Your task to perform on an android device: turn notification dots off Image 0: 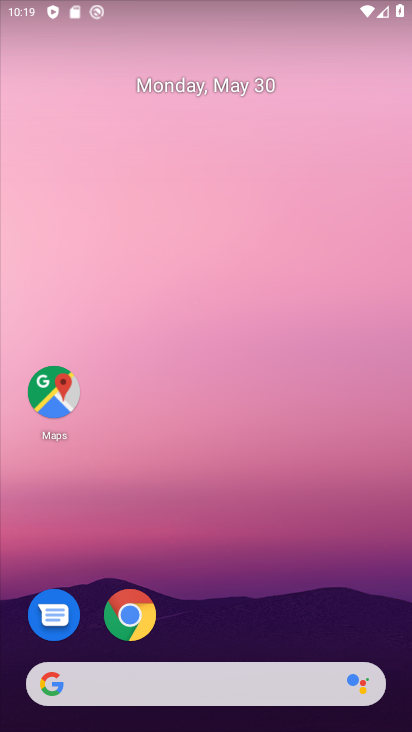
Step 0: drag from (289, 518) to (218, 41)
Your task to perform on an android device: turn notification dots off Image 1: 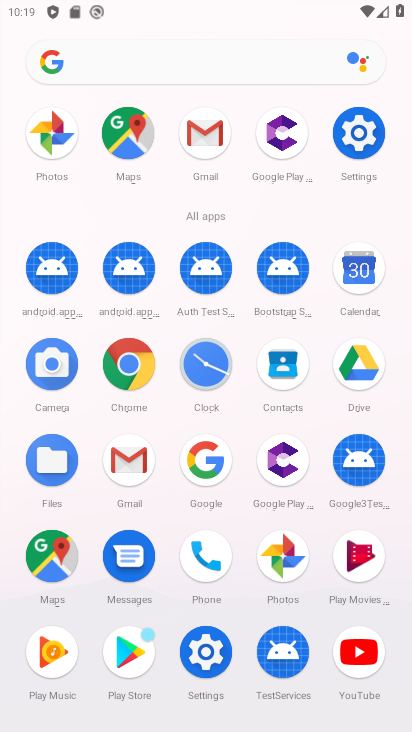
Step 1: drag from (12, 588) to (8, 212)
Your task to perform on an android device: turn notification dots off Image 2: 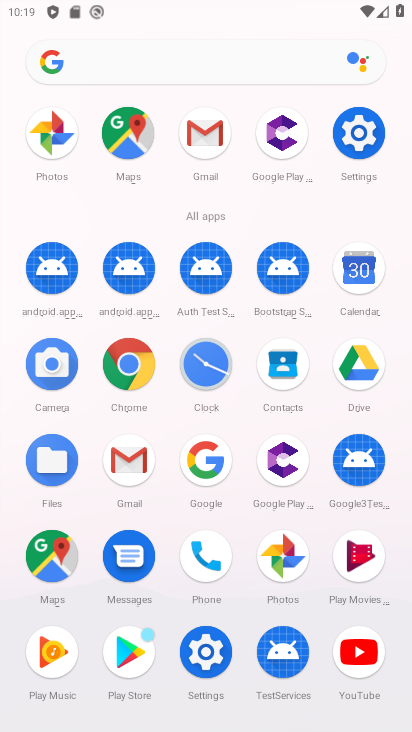
Step 2: click (203, 653)
Your task to perform on an android device: turn notification dots off Image 3: 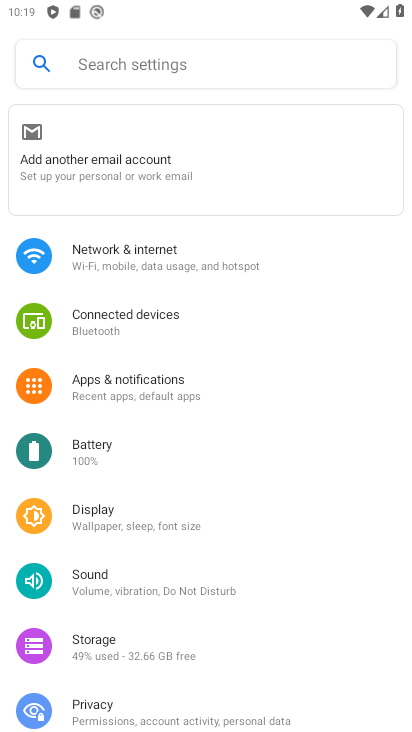
Step 3: click (160, 379)
Your task to perform on an android device: turn notification dots off Image 4: 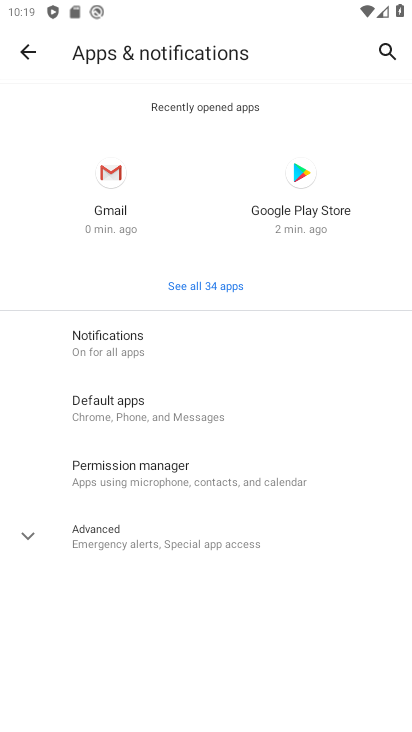
Step 4: click (28, 541)
Your task to perform on an android device: turn notification dots off Image 5: 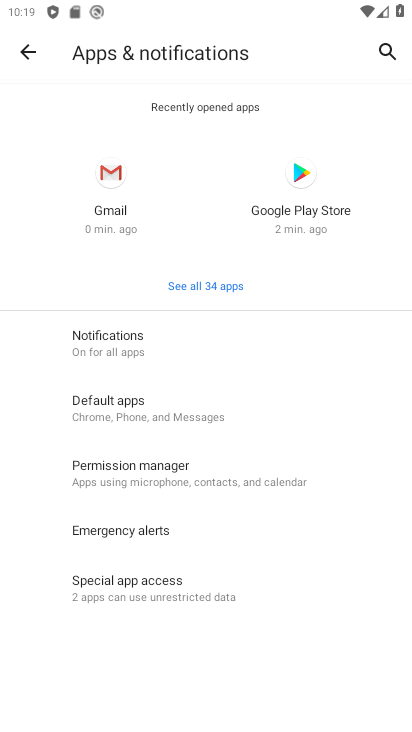
Step 5: click (175, 332)
Your task to perform on an android device: turn notification dots off Image 6: 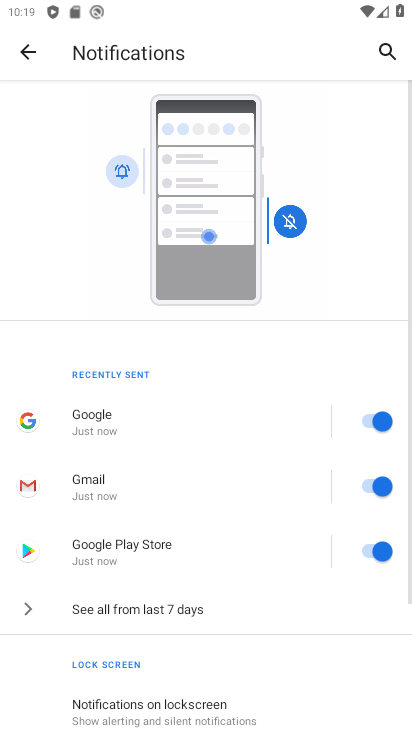
Step 6: drag from (238, 666) to (279, 273)
Your task to perform on an android device: turn notification dots off Image 7: 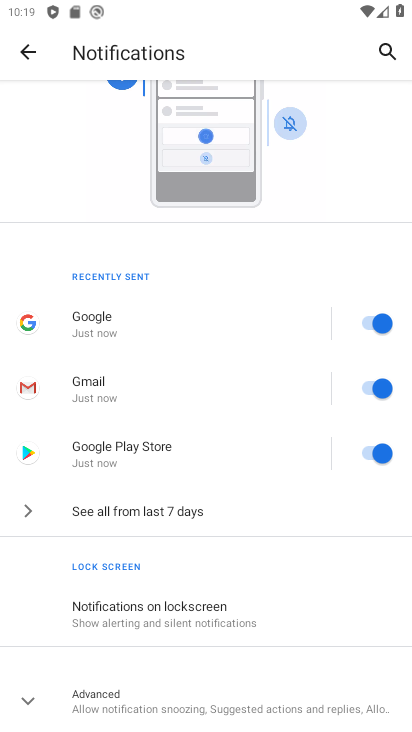
Step 7: click (55, 692)
Your task to perform on an android device: turn notification dots off Image 8: 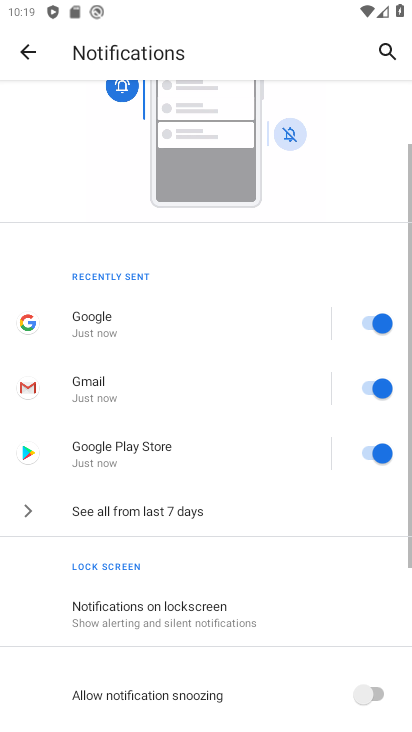
Step 8: drag from (287, 638) to (243, 224)
Your task to perform on an android device: turn notification dots off Image 9: 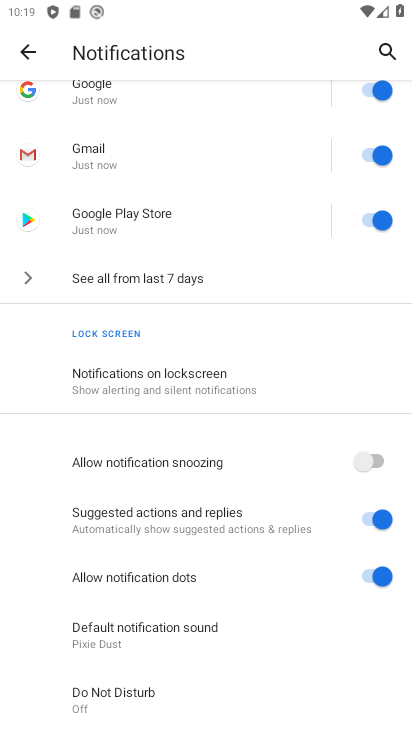
Step 9: click (362, 573)
Your task to perform on an android device: turn notification dots off Image 10: 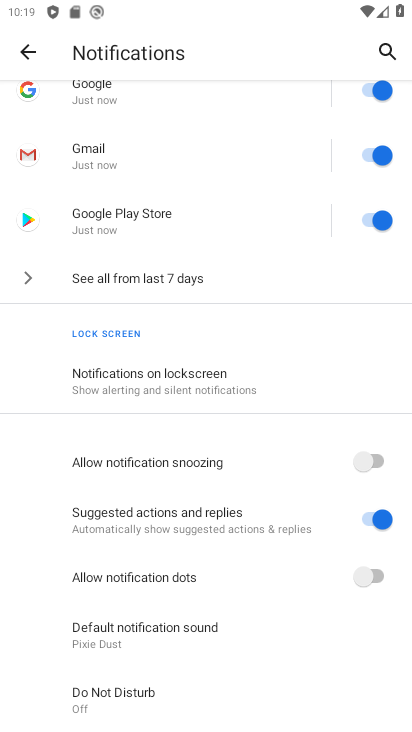
Step 10: task complete